Your task to perform on an android device: Do I have any events today? Image 0: 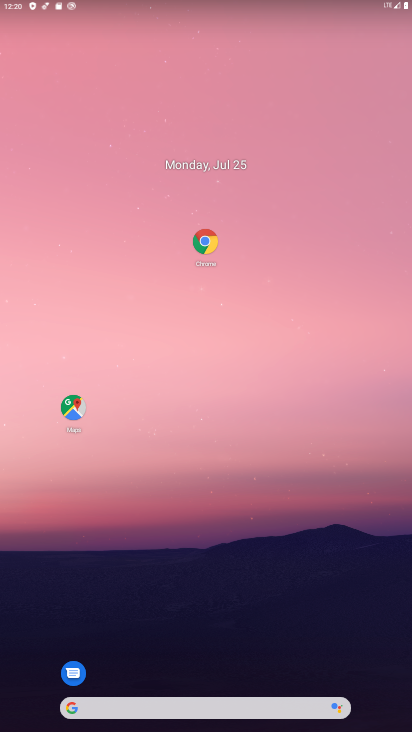
Step 0: drag from (199, 708) to (179, 44)
Your task to perform on an android device: Do I have any events today? Image 1: 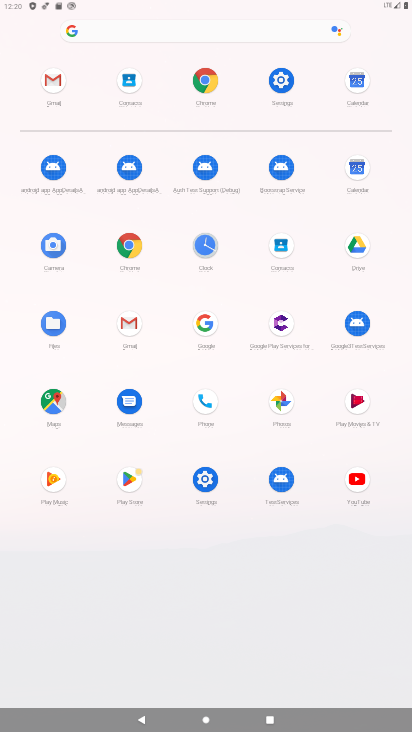
Step 1: click (362, 176)
Your task to perform on an android device: Do I have any events today? Image 2: 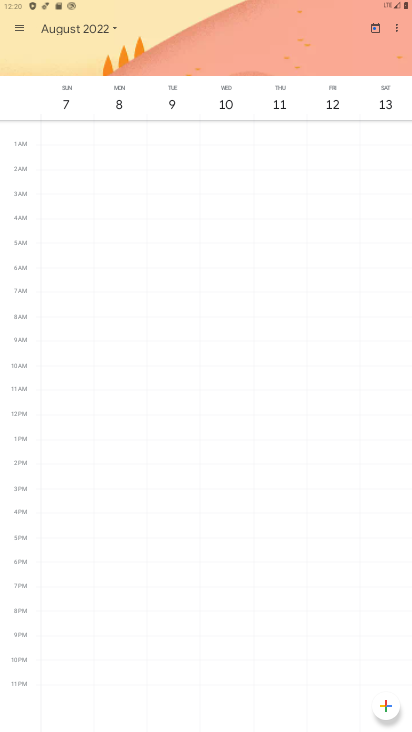
Step 2: click (108, 22)
Your task to perform on an android device: Do I have any events today? Image 3: 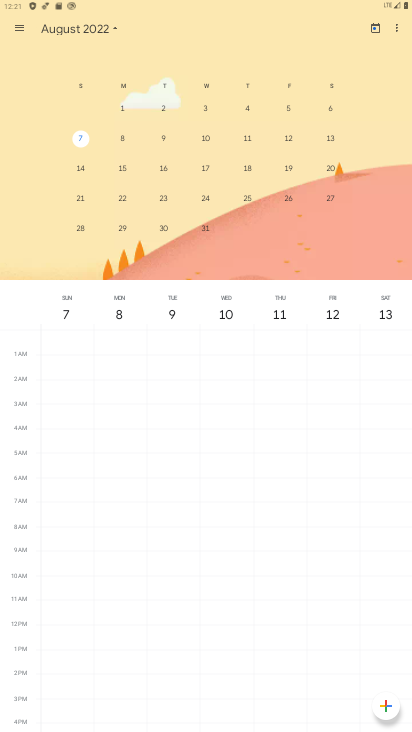
Step 3: drag from (68, 147) to (358, 197)
Your task to perform on an android device: Do I have any events today? Image 4: 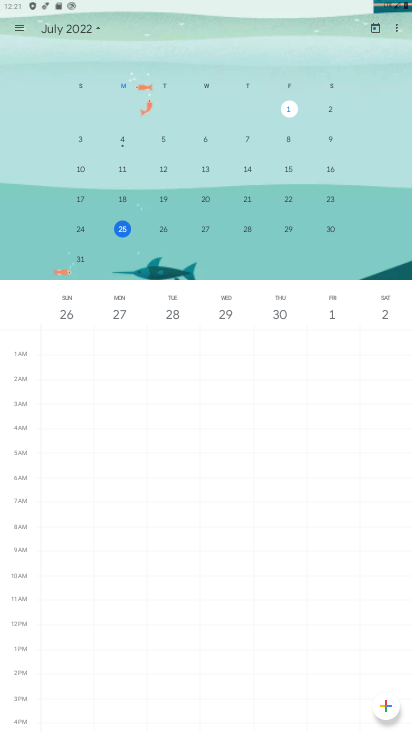
Step 4: click (125, 224)
Your task to perform on an android device: Do I have any events today? Image 5: 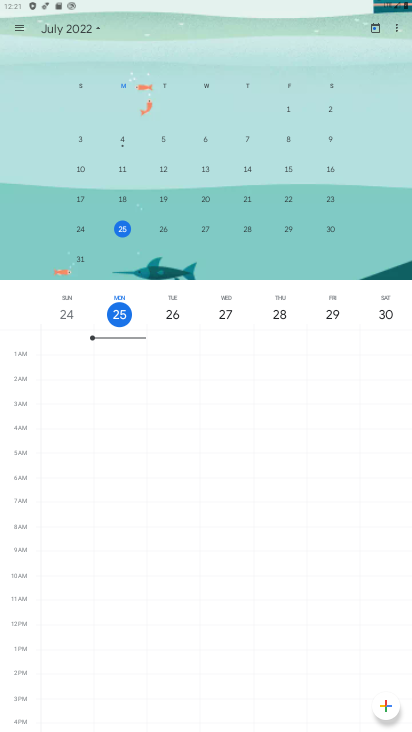
Step 5: task complete